Your task to perform on an android device: toggle data saver in the chrome app Image 0: 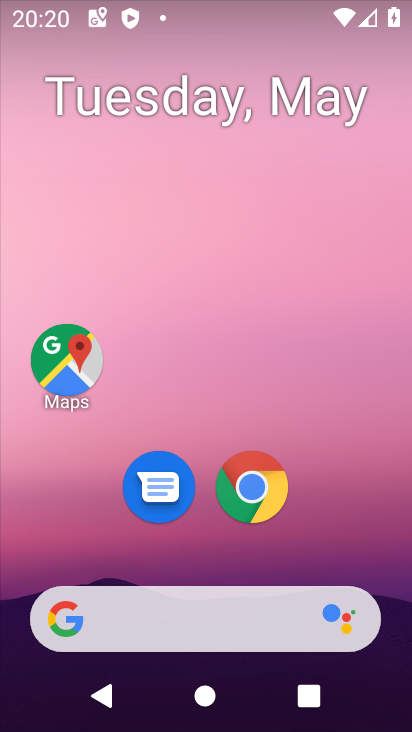
Step 0: click (256, 500)
Your task to perform on an android device: toggle data saver in the chrome app Image 1: 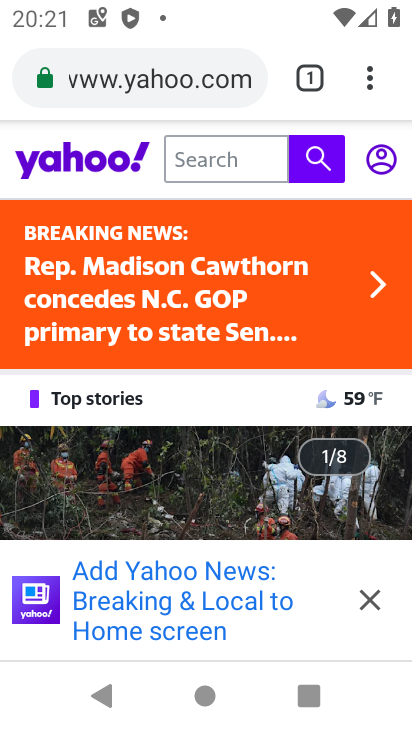
Step 1: click (384, 80)
Your task to perform on an android device: toggle data saver in the chrome app Image 2: 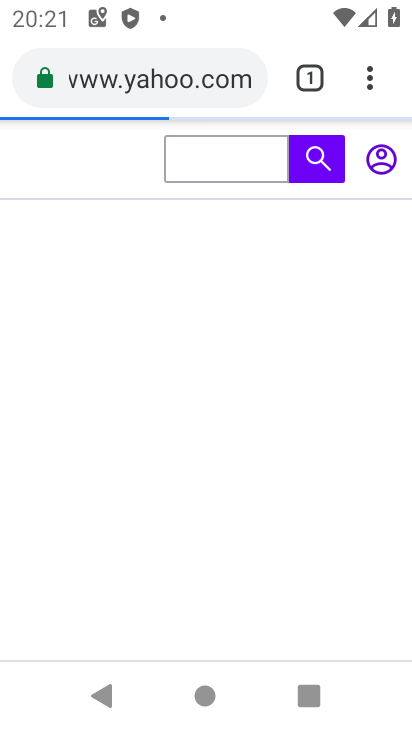
Step 2: click (372, 86)
Your task to perform on an android device: toggle data saver in the chrome app Image 3: 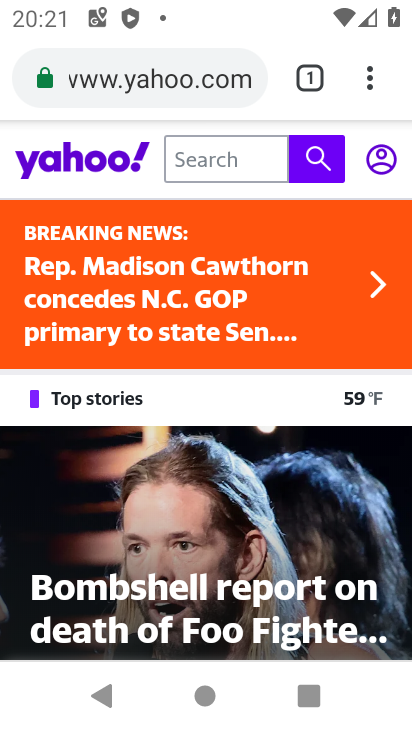
Step 3: click (383, 80)
Your task to perform on an android device: toggle data saver in the chrome app Image 4: 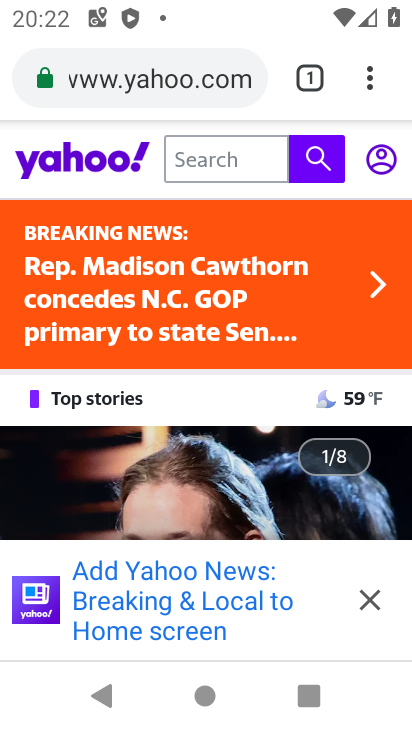
Step 4: click (361, 81)
Your task to perform on an android device: toggle data saver in the chrome app Image 5: 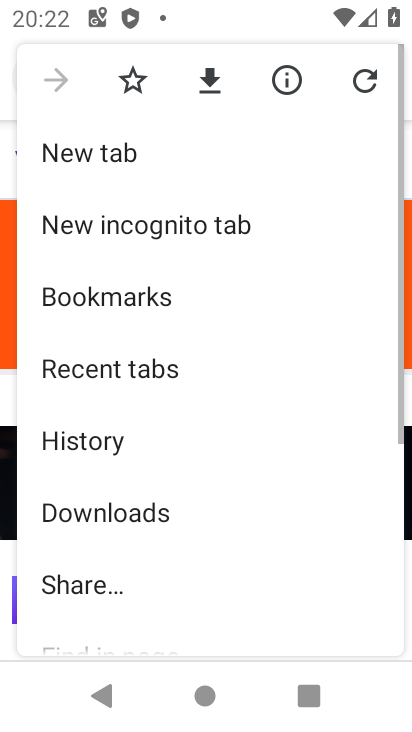
Step 5: drag from (193, 586) to (276, 200)
Your task to perform on an android device: toggle data saver in the chrome app Image 6: 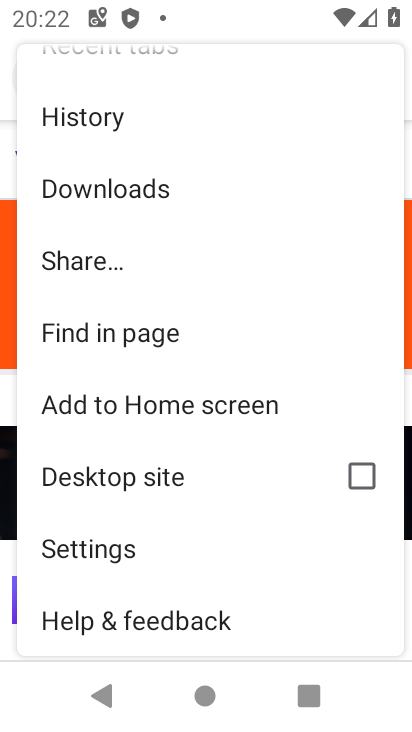
Step 6: click (219, 557)
Your task to perform on an android device: toggle data saver in the chrome app Image 7: 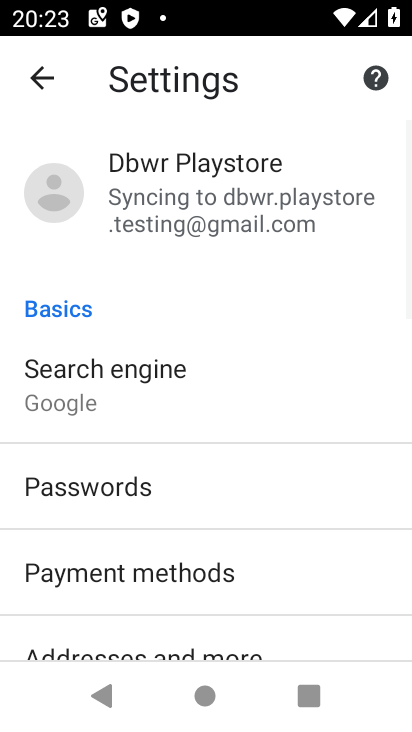
Step 7: drag from (249, 593) to (273, 203)
Your task to perform on an android device: toggle data saver in the chrome app Image 8: 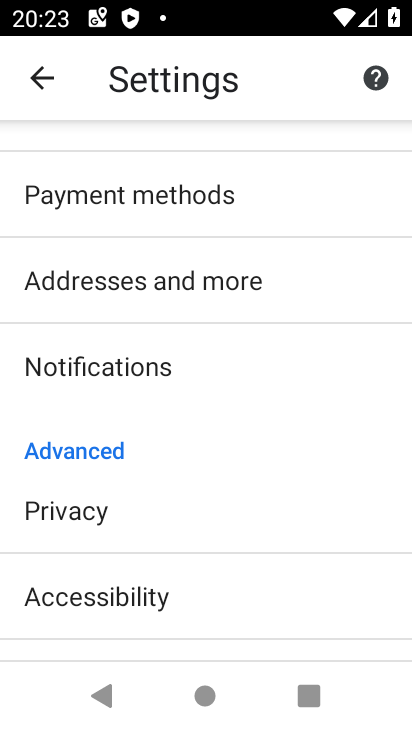
Step 8: drag from (160, 602) to (203, 317)
Your task to perform on an android device: toggle data saver in the chrome app Image 9: 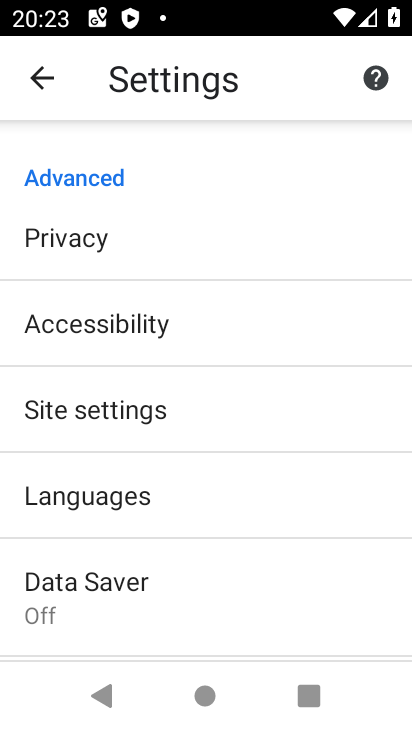
Step 9: click (144, 564)
Your task to perform on an android device: toggle data saver in the chrome app Image 10: 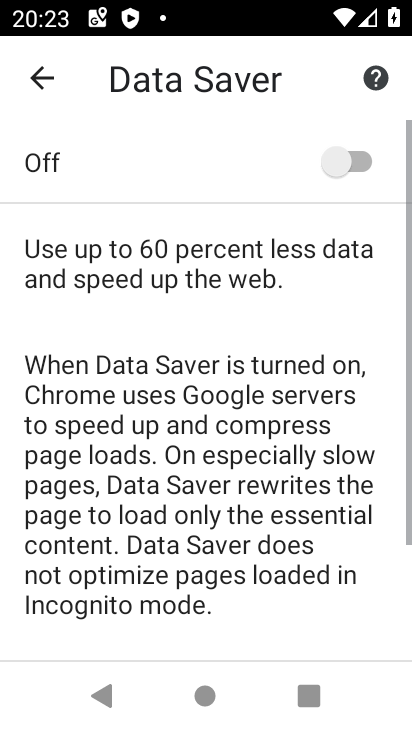
Step 10: click (339, 170)
Your task to perform on an android device: toggle data saver in the chrome app Image 11: 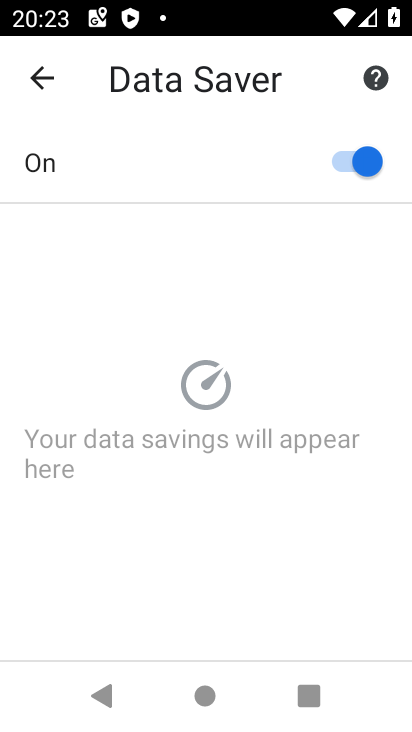
Step 11: task complete